Your task to perform on an android device: Open my contact list Image 0: 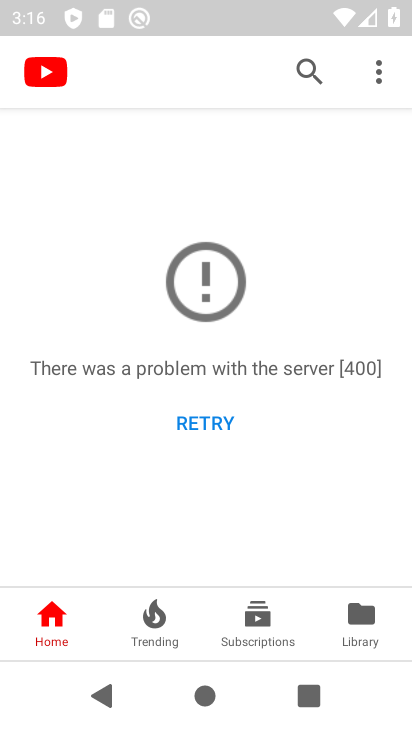
Step 0: press home button
Your task to perform on an android device: Open my contact list Image 1: 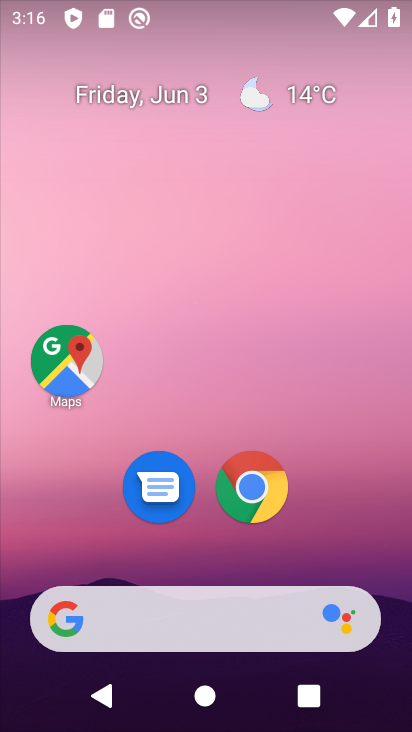
Step 1: drag from (190, 554) to (357, 8)
Your task to perform on an android device: Open my contact list Image 2: 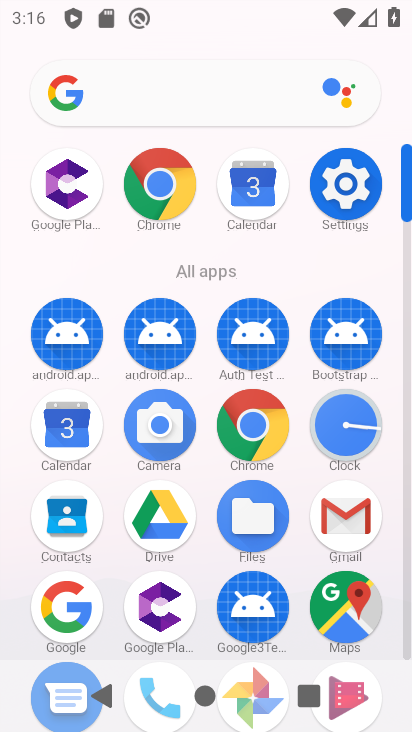
Step 2: click (62, 519)
Your task to perform on an android device: Open my contact list Image 3: 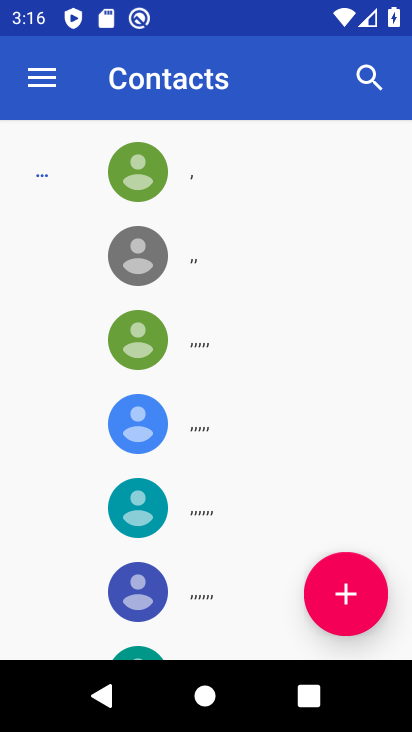
Step 3: task complete